Your task to perform on an android device: Open the calendar app, open the side menu, and click the "Day" option Image 0: 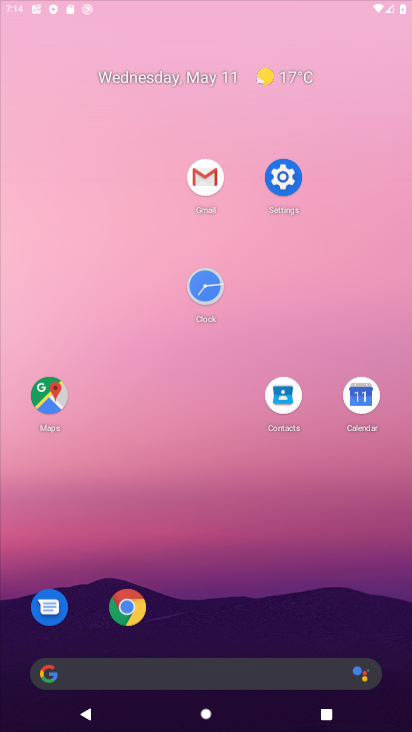
Step 0: drag from (194, 329) to (178, 255)
Your task to perform on an android device: Open the calendar app, open the side menu, and click the "Day" option Image 1: 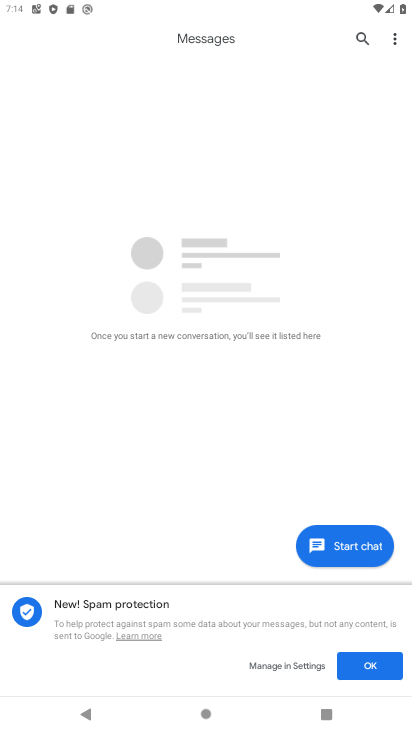
Step 1: press home button
Your task to perform on an android device: Open the calendar app, open the side menu, and click the "Day" option Image 2: 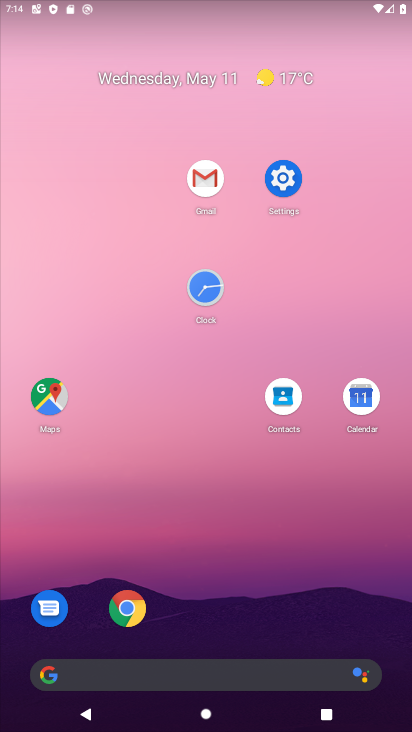
Step 2: click (349, 400)
Your task to perform on an android device: Open the calendar app, open the side menu, and click the "Day" option Image 3: 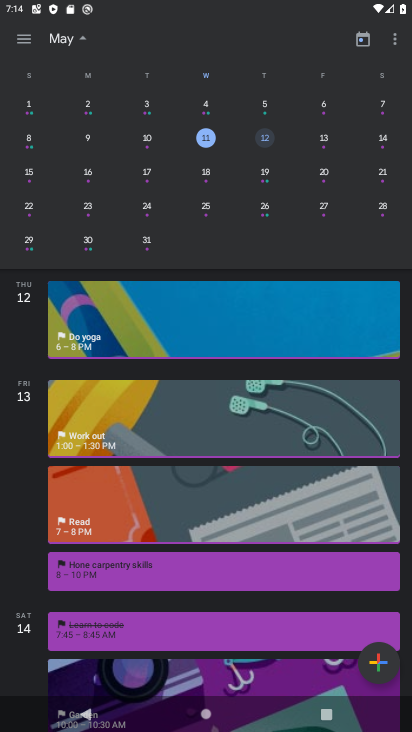
Step 3: click (29, 32)
Your task to perform on an android device: Open the calendar app, open the side menu, and click the "Day" option Image 4: 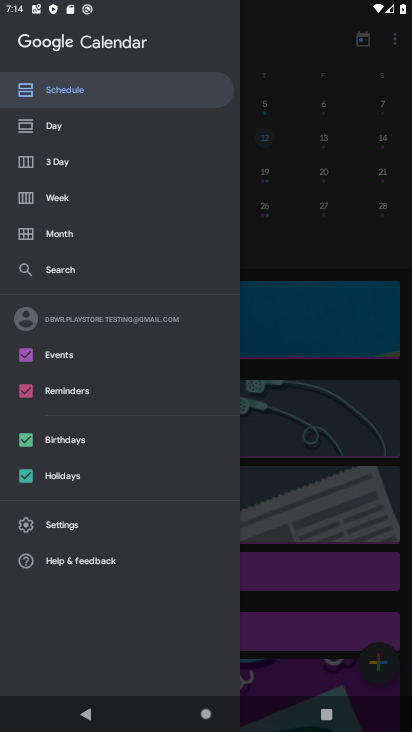
Step 4: click (82, 130)
Your task to perform on an android device: Open the calendar app, open the side menu, and click the "Day" option Image 5: 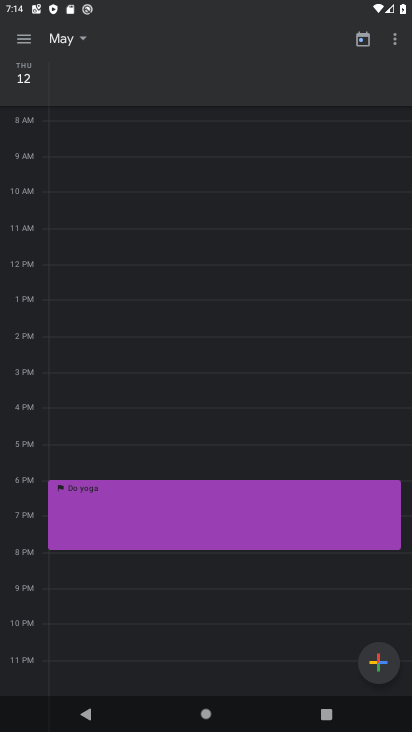
Step 5: task complete